Your task to perform on an android device: find snoozed emails in the gmail app Image 0: 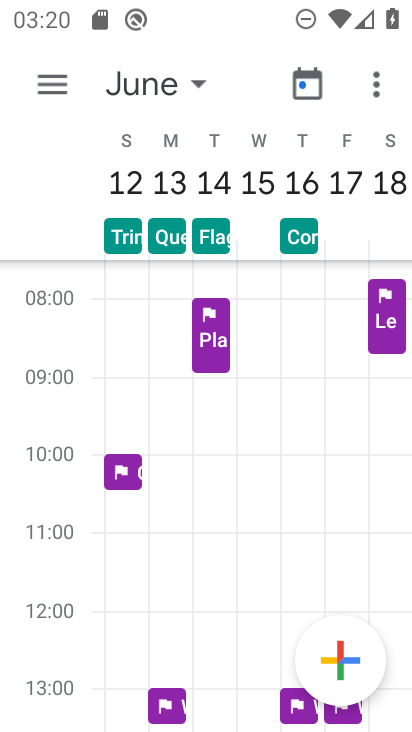
Step 0: press home button
Your task to perform on an android device: find snoozed emails in the gmail app Image 1: 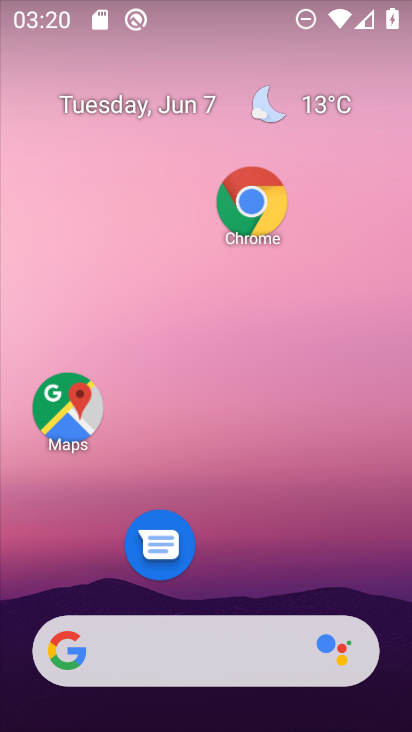
Step 1: drag from (269, 542) to (287, 195)
Your task to perform on an android device: find snoozed emails in the gmail app Image 2: 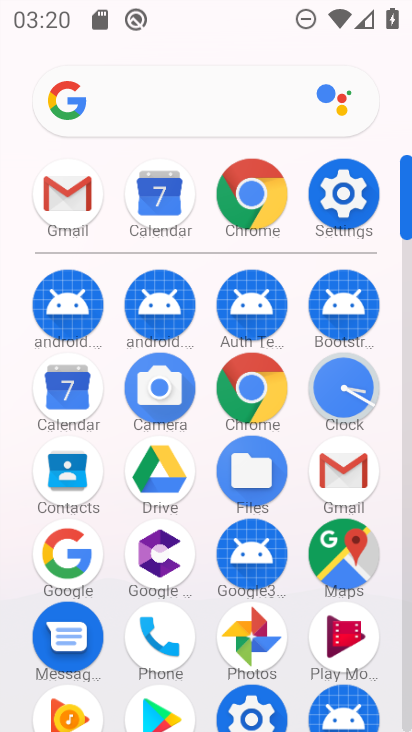
Step 2: click (343, 470)
Your task to perform on an android device: find snoozed emails in the gmail app Image 3: 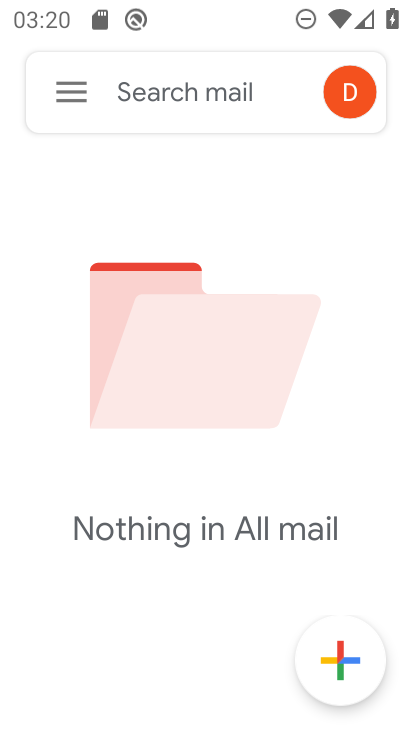
Step 3: click (57, 88)
Your task to perform on an android device: find snoozed emails in the gmail app Image 4: 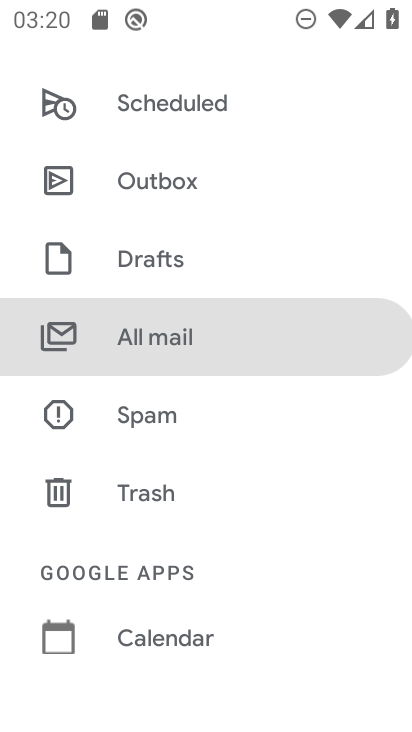
Step 4: drag from (199, 204) to (222, 543)
Your task to perform on an android device: find snoozed emails in the gmail app Image 5: 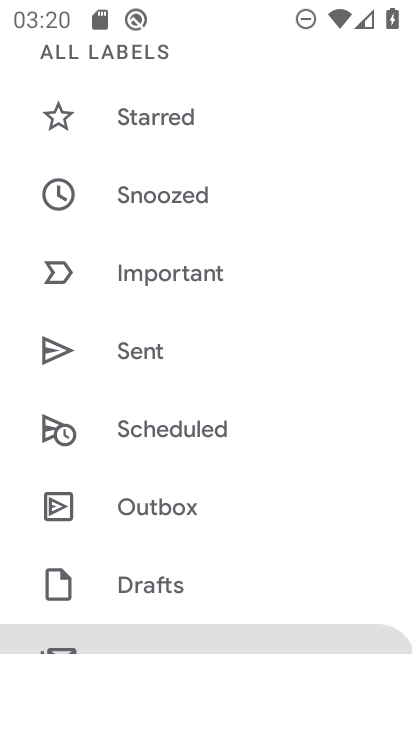
Step 5: click (149, 188)
Your task to perform on an android device: find snoozed emails in the gmail app Image 6: 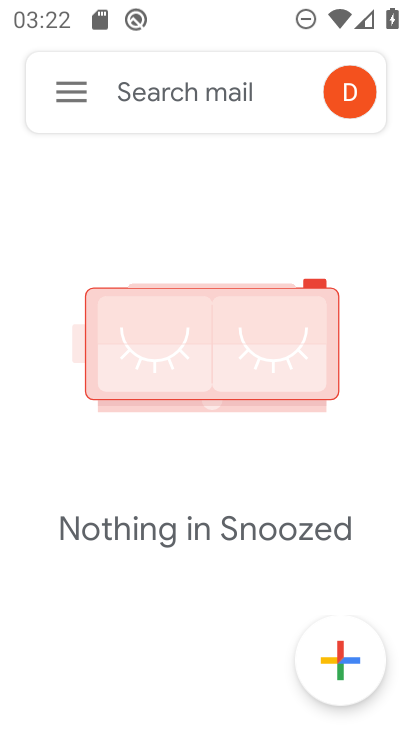
Step 6: task complete